Your task to perform on an android device: set the stopwatch Image 0: 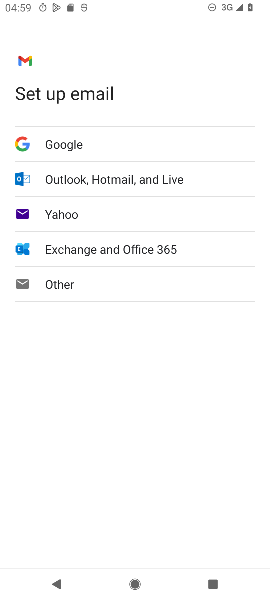
Step 0: press home button
Your task to perform on an android device: set the stopwatch Image 1: 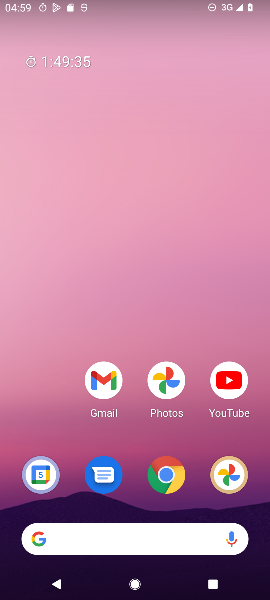
Step 1: drag from (55, 442) to (63, 228)
Your task to perform on an android device: set the stopwatch Image 2: 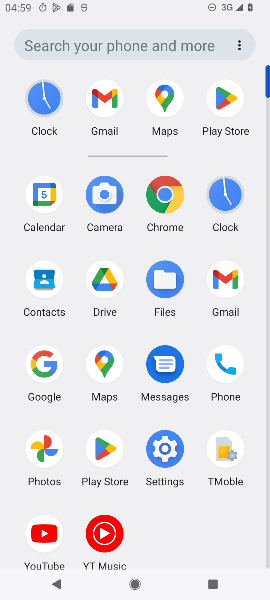
Step 2: click (225, 201)
Your task to perform on an android device: set the stopwatch Image 3: 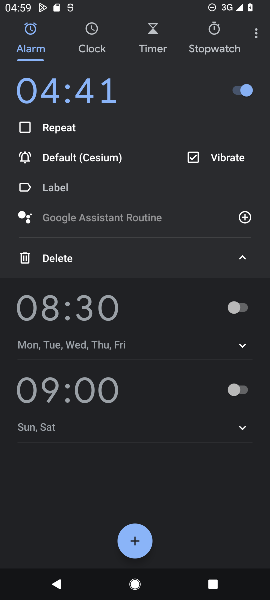
Step 3: click (217, 35)
Your task to perform on an android device: set the stopwatch Image 4: 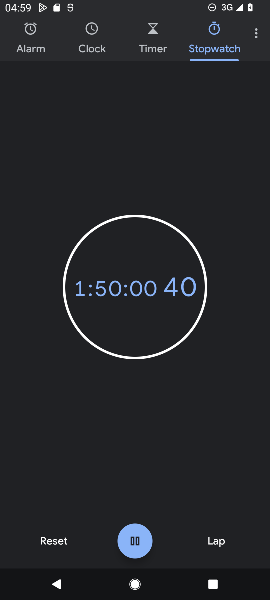
Step 4: task complete